Your task to perform on an android device: turn notification dots on Image 0: 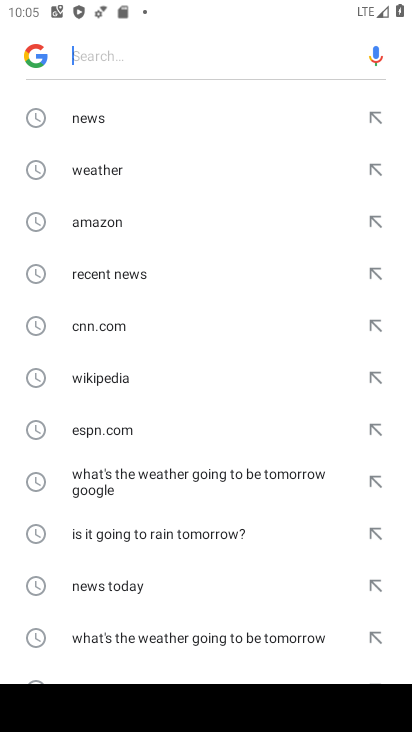
Step 0: press home button
Your task to perform on an android device: turn notification dots on Image 1: 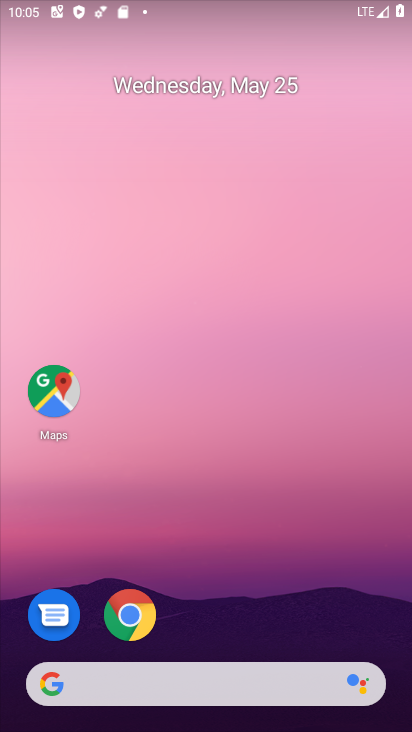
Step 1: drag from (238, 546) to (284, 51)
Your task to perform on an android device: turn notification dots on Image 2: 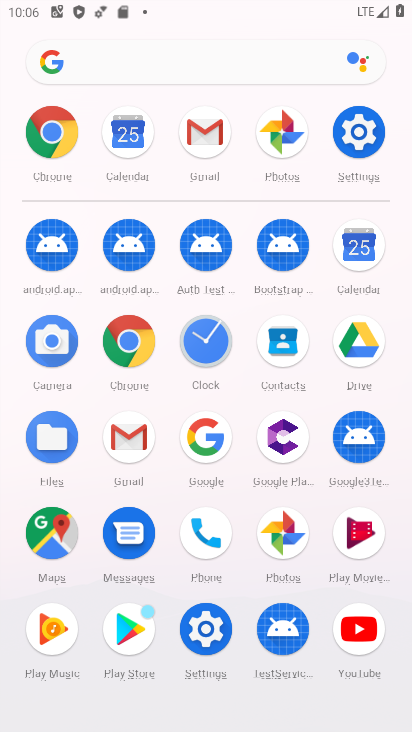
Step 2: click (353, 127)
Your task to perform on an android device: turn notification dots on Image 3: 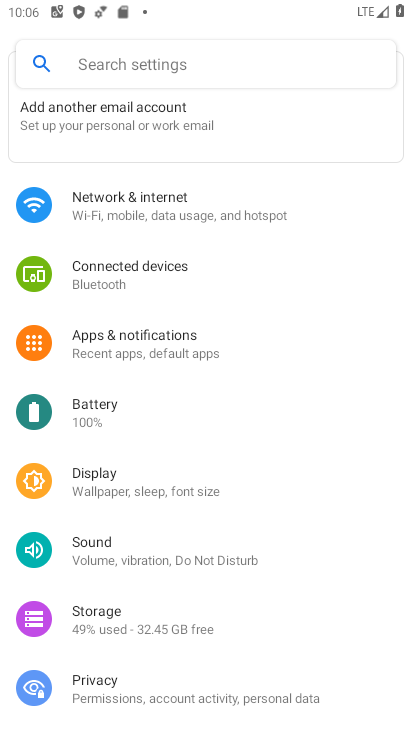
Step 3: click (176, 341)
Your task to perform on an android device: turn notification dots on Image 4: 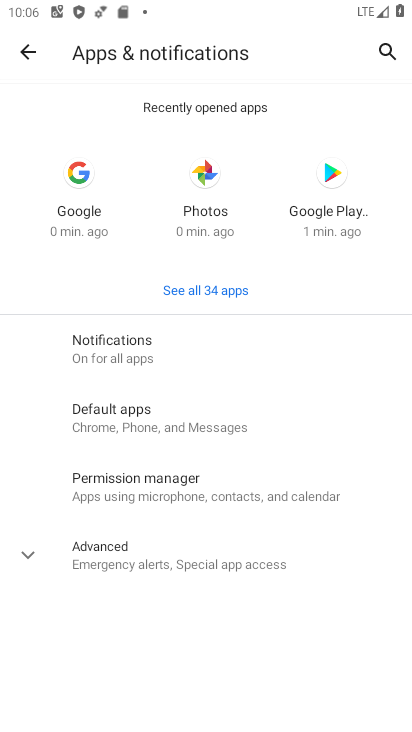
Step 4: click (174, 341)
Your task to perform on an android device: turn notification dots on Image 5: 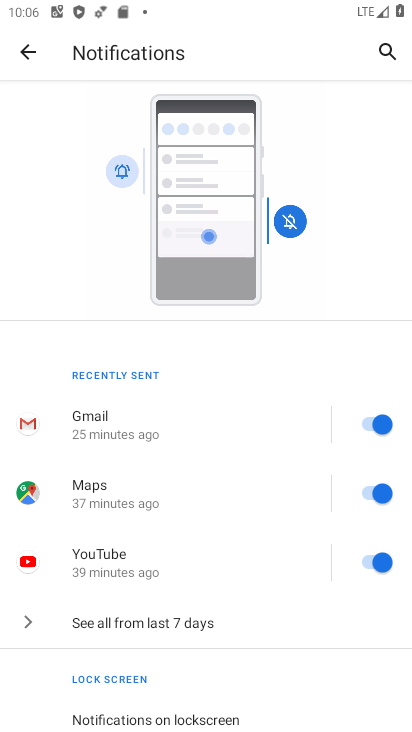
Step 5: drag from (209, 571) to (244, 70)
Your task to perform on an android device: turn notification dots on Image 6: 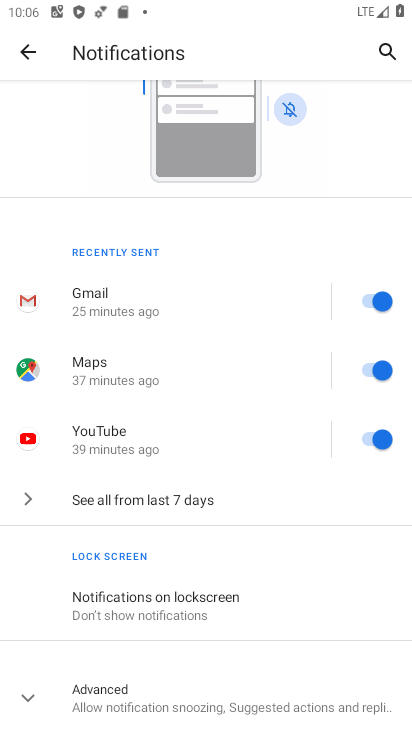
Step 6: click (26, 694)
Your task to perform on an android device: turn notification dots on Image 7: 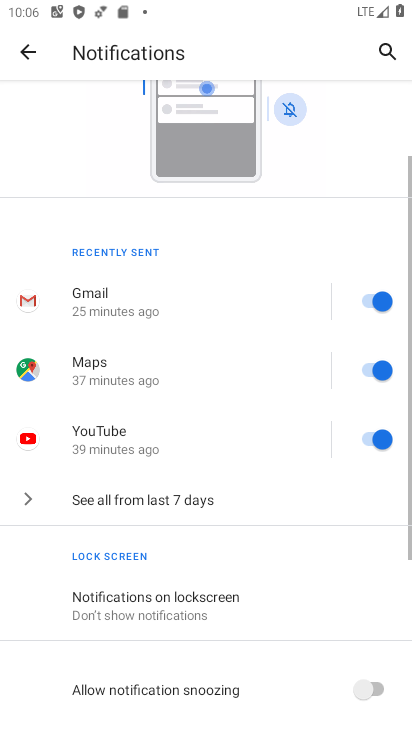
Step 7: task complete